Your task to perform on an android device: uninstall "Life360: Find Family & Friends" Image 0: 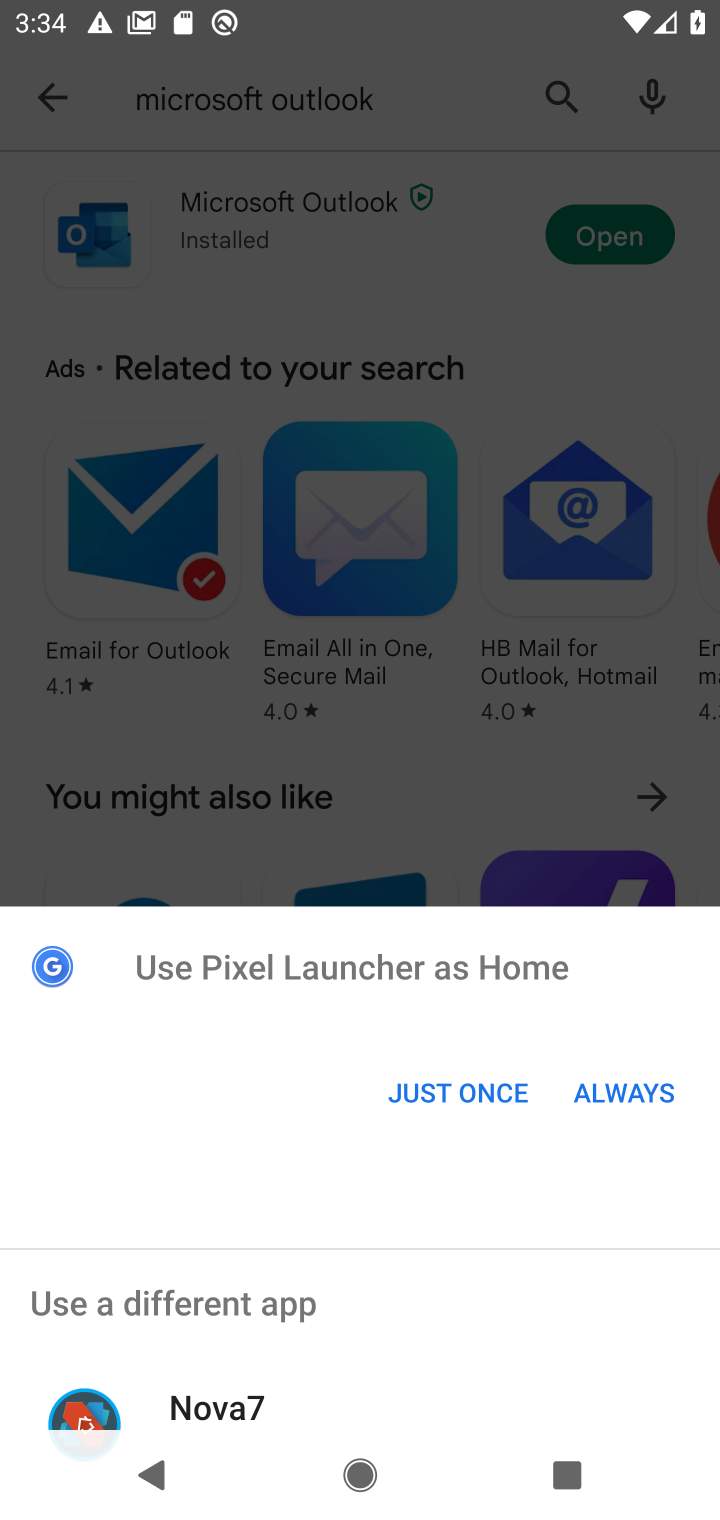
Step 0: click (481, 1074)
Your task to perform on an android device: uninstall "Life360: Find Family & Friends" Image 1: 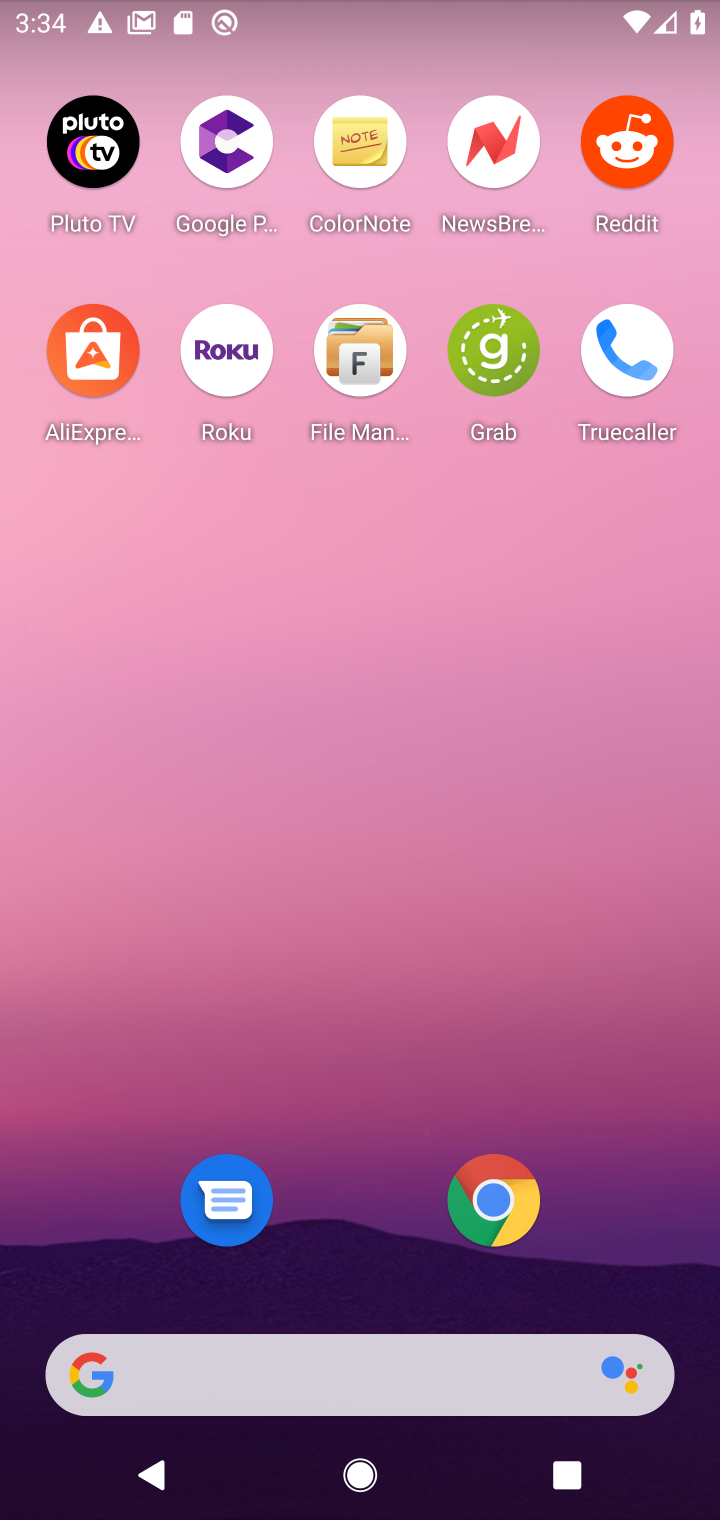
Step 1: drag from (326, 1197) to (280, 3)
Your task to perform on an android device: uninstall "Life360: Find Family & Friends" Image 2: 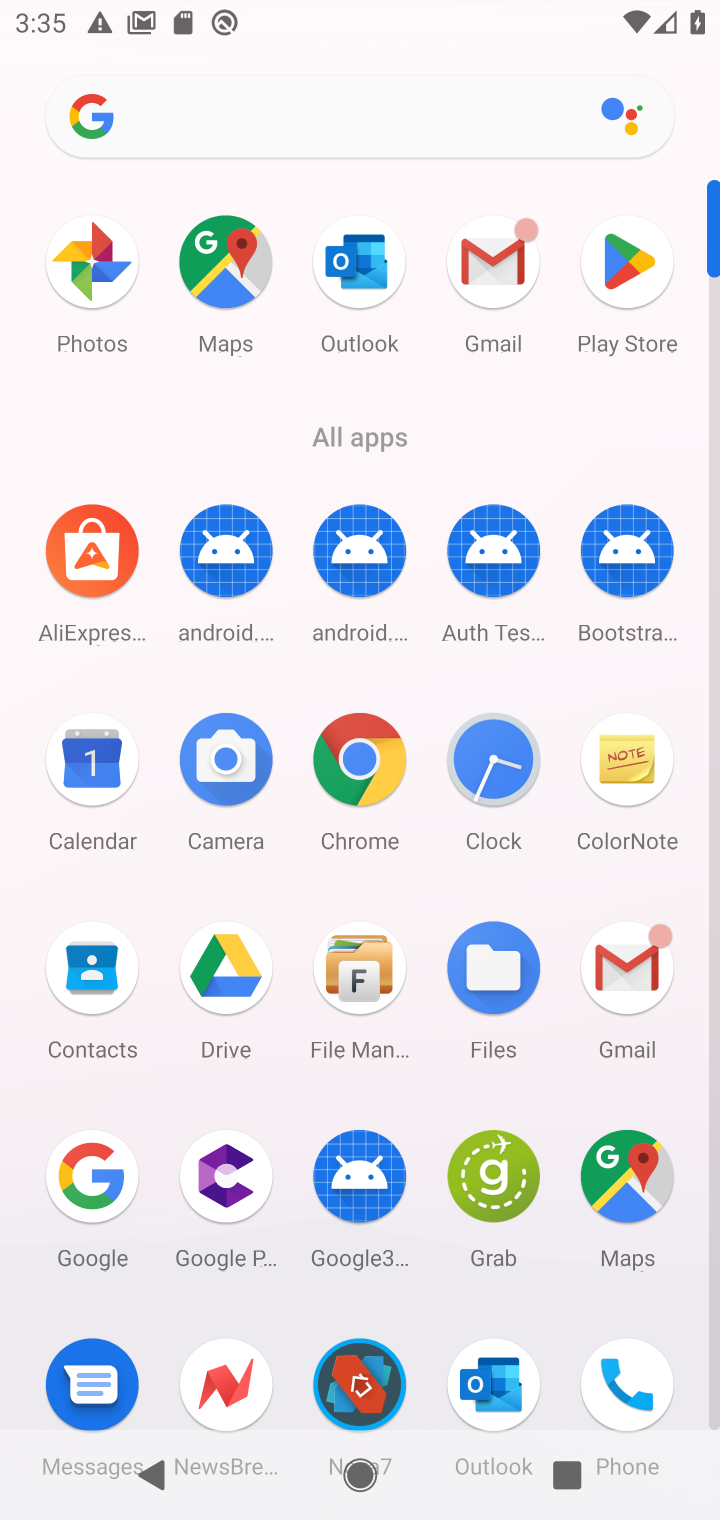
Step 2: click (633, 378)
Your task to perform on an android device: uninstall "Life360: Find Family & Friends" Image 3: 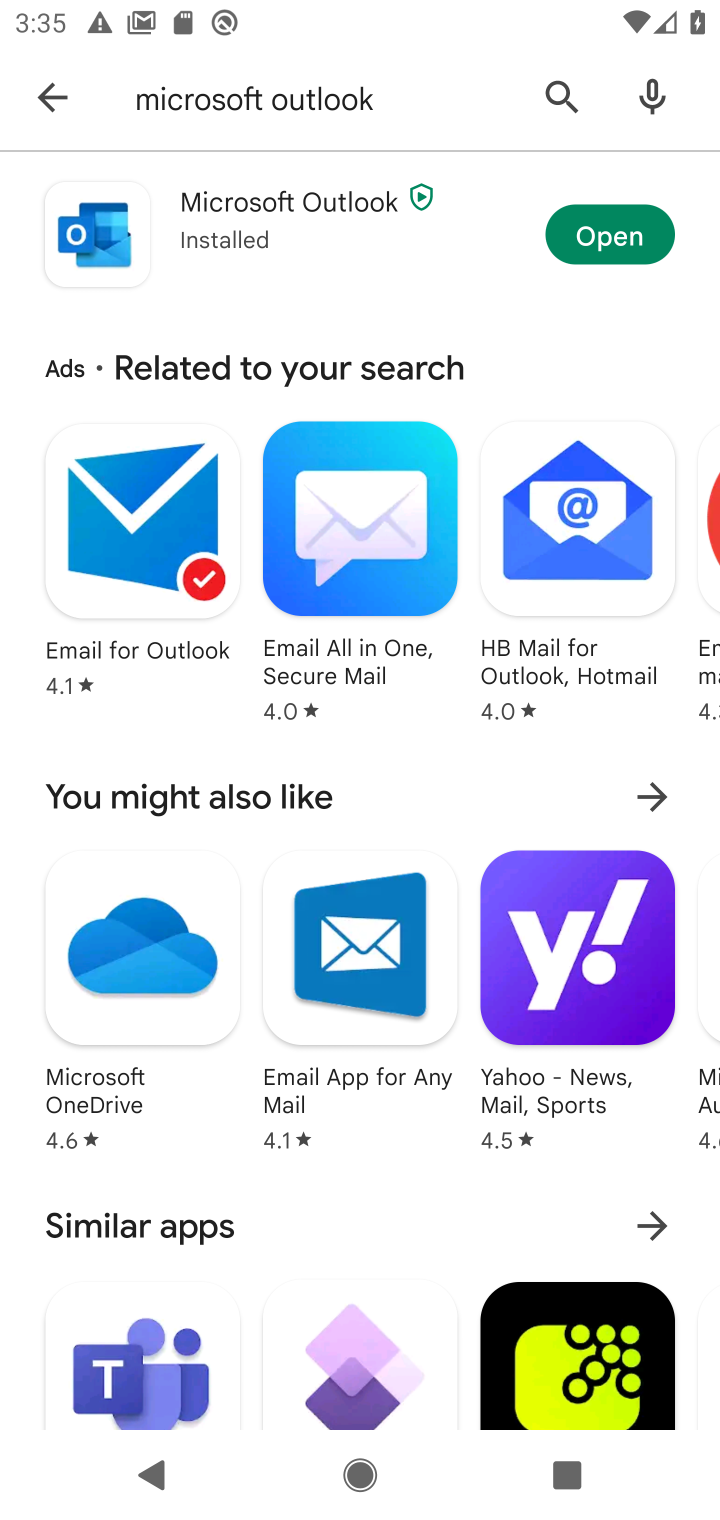
Step 3: click (307, 140)
Your task to perform on an android device: uninstall "Life360: Find Family & Friends" Image 4: 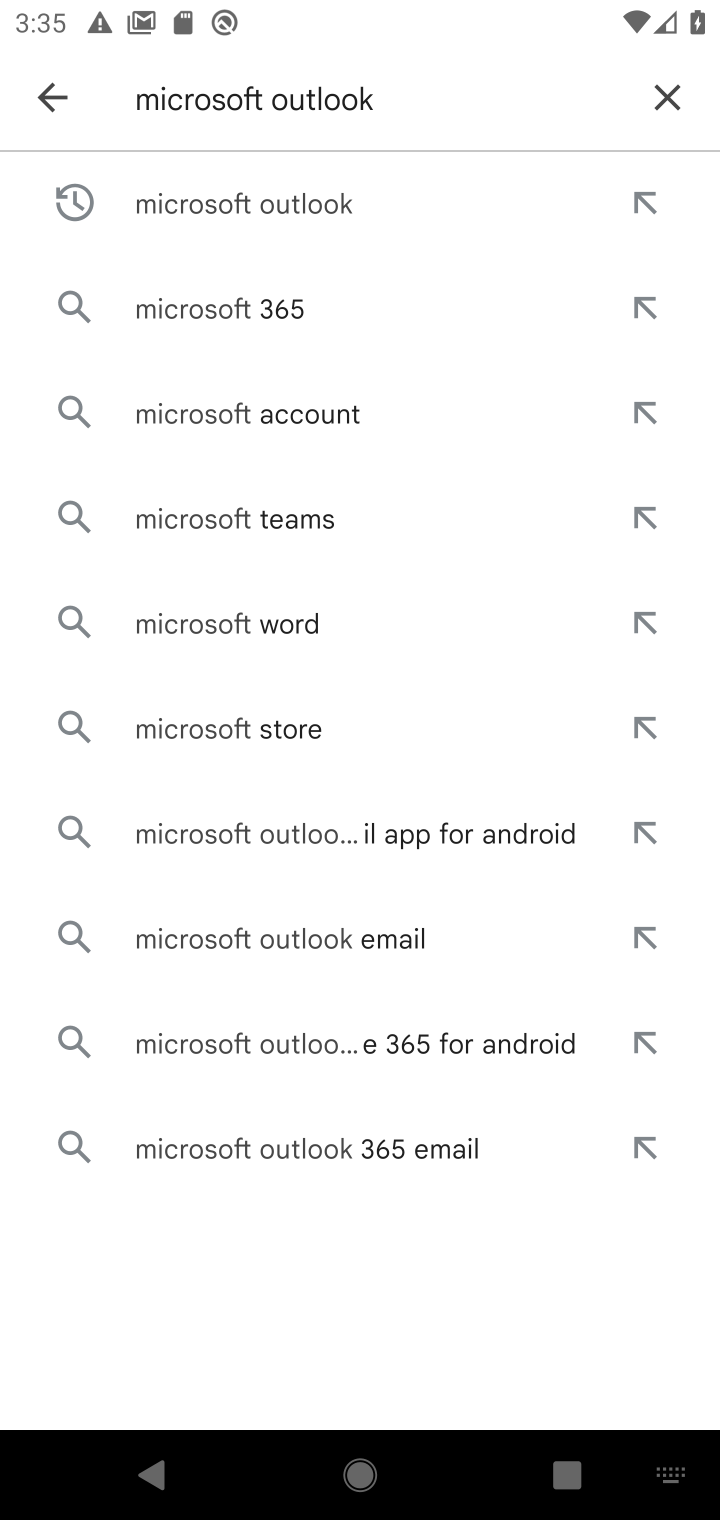
Step 4: click (658, 102)
Your task to perform on an android device: uninstall "Life360: Find Family & Friends" Image 5: 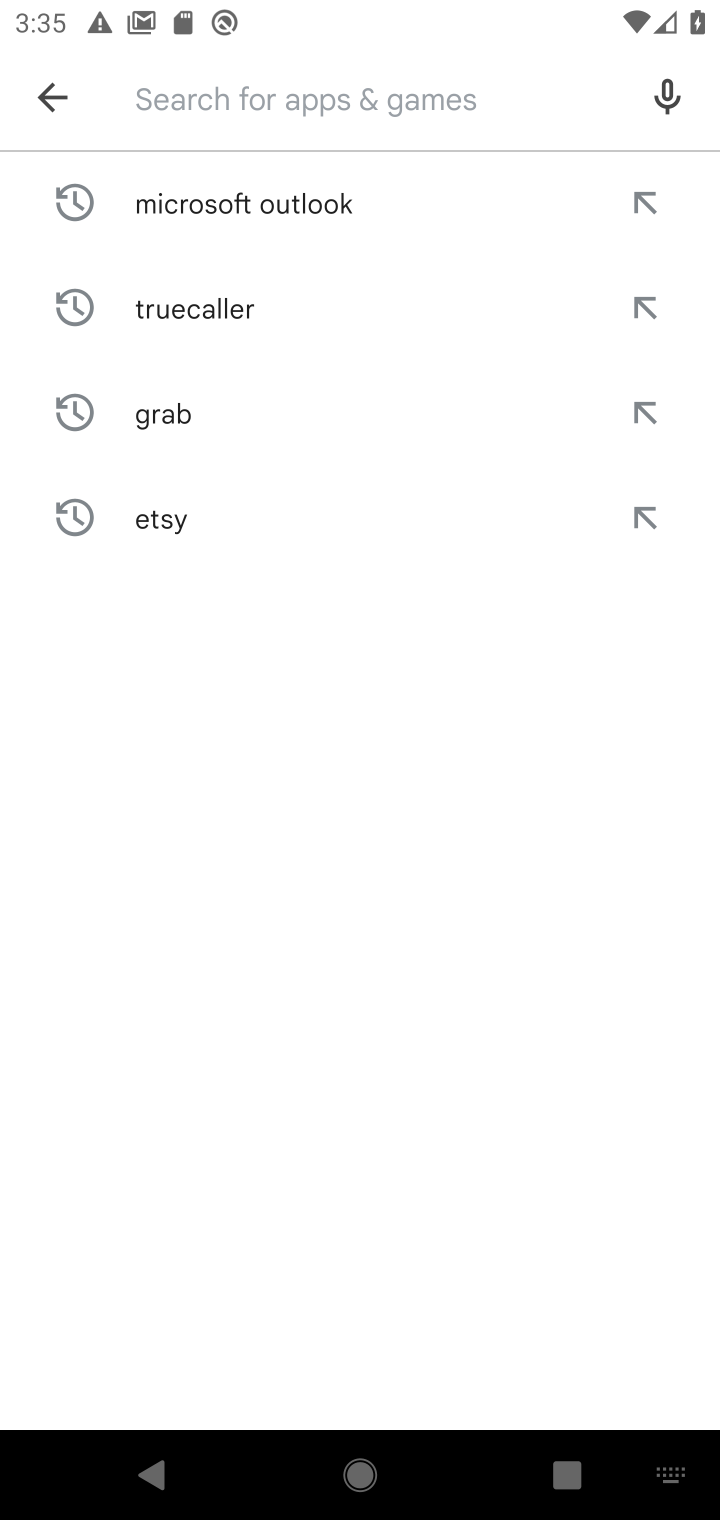
Step 5: type "life360"
Your task to perform on an android device: uninstall "Life360: Find Family & Friends" Image 6: 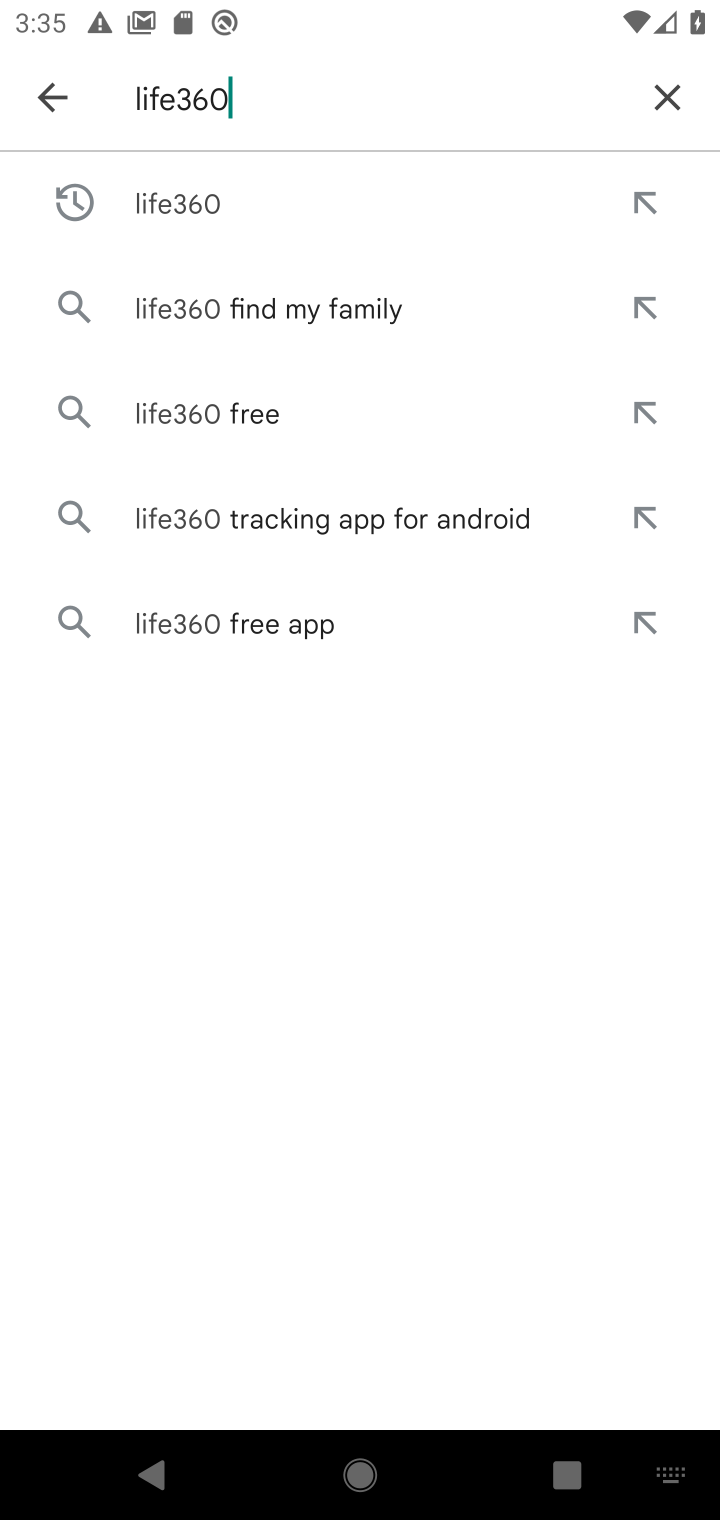
Step 6: click (271, 318)
Your task to perform on an android device: uninstall "Life360: Find Family & Friends" Image 7: 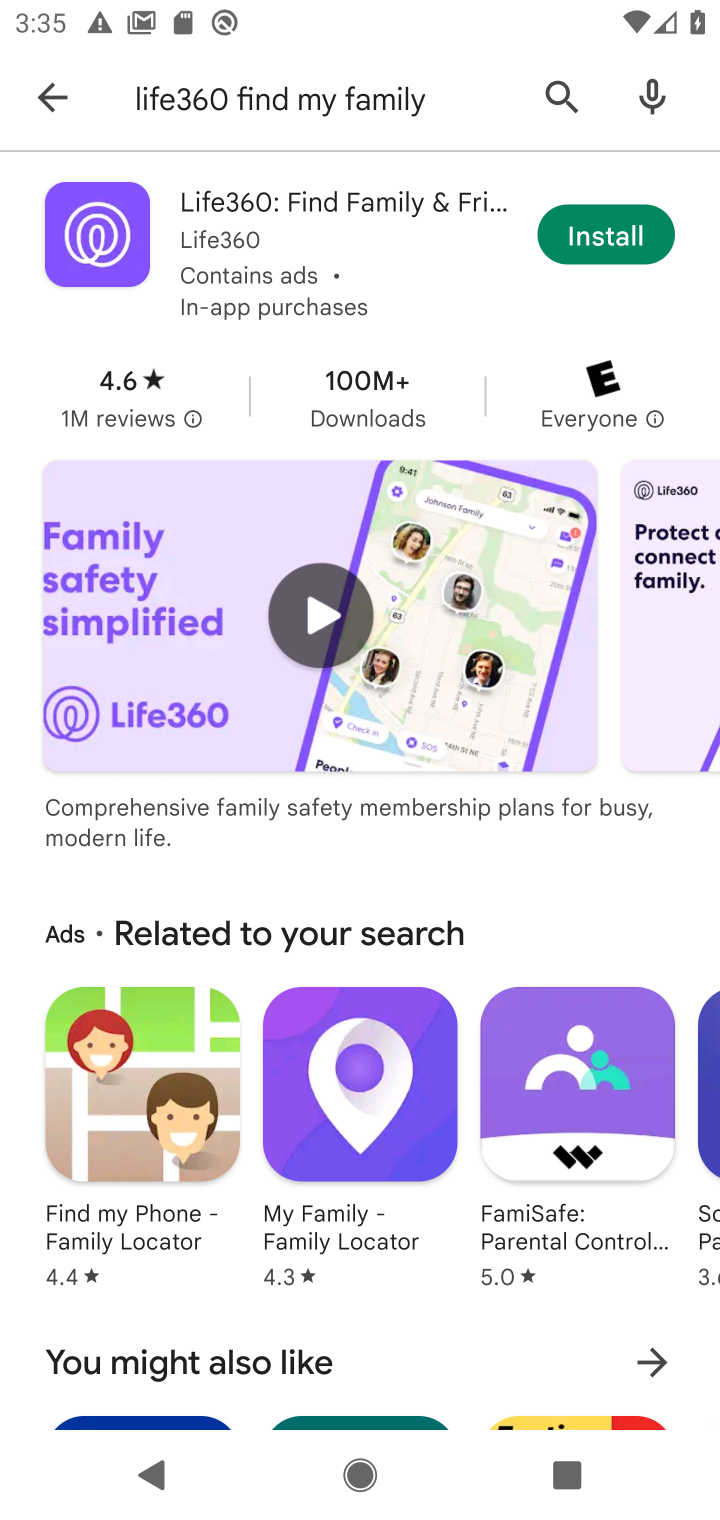
Step 7: task complete